Your task to perform on an android device: turn off improve location accuracy Image 0: 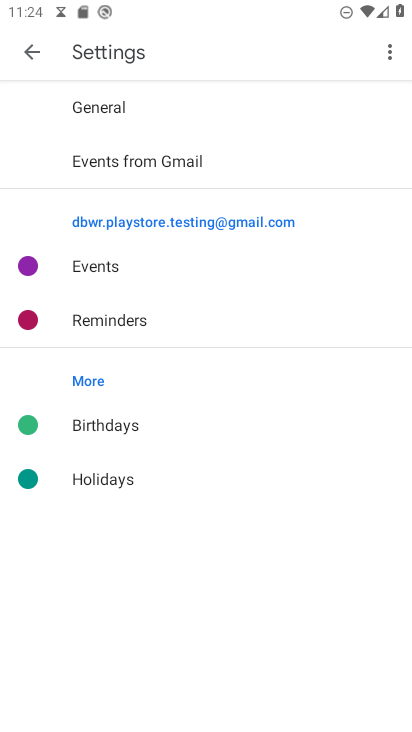
Step 0: press home button
Your task to perform on an android device: turn off improve location accuracy Image 1: 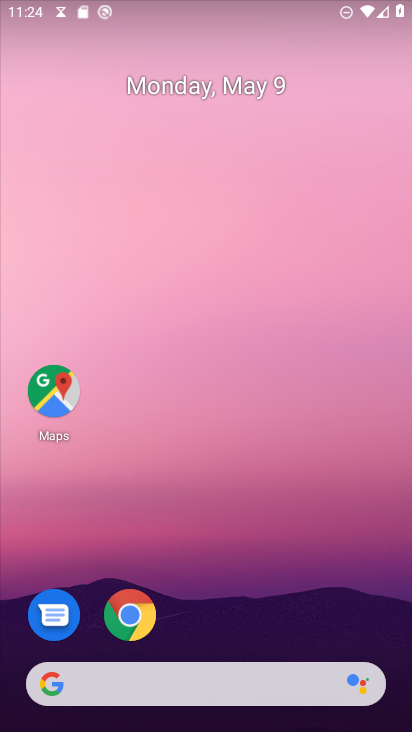
Step 1: drag from (209, 723) to (196, 183)
Your task to perform on an android device: turn off improve location accuracy Image 2: 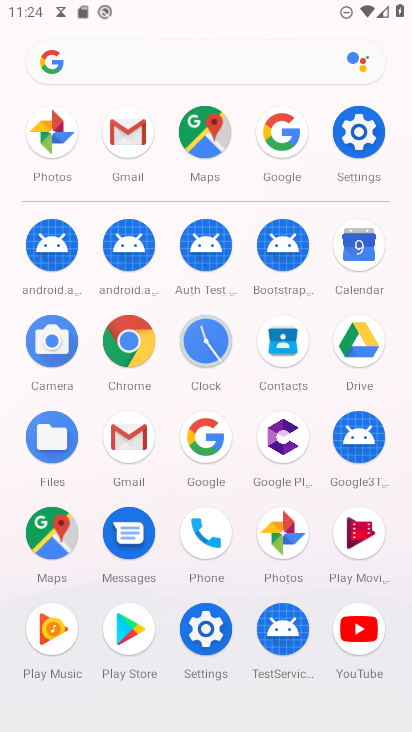
Step 2: click (360, 129)
Your task to perform on an android device: turn off improve location accuracy Image 3: 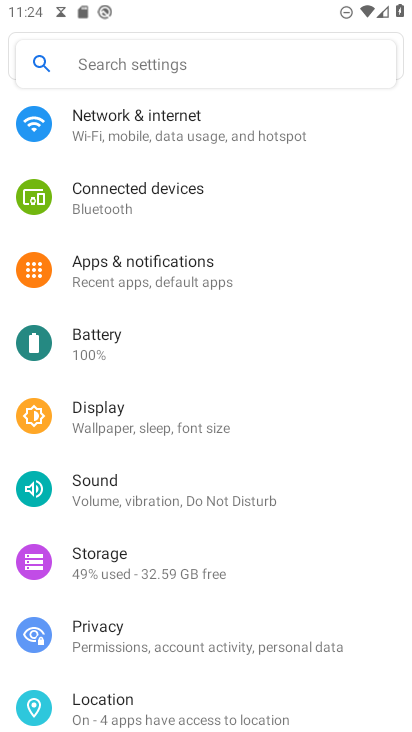
Step 3: click (114, 702)
Your task to perform on an android device: turn off improve location accuracy Image 4: 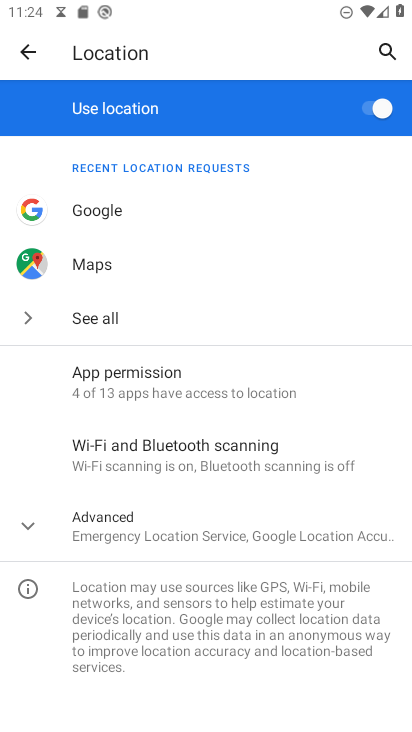
Step 4: click (136, 529)
Your task to perform on an android device: turn off improve location accuracy Image 5: 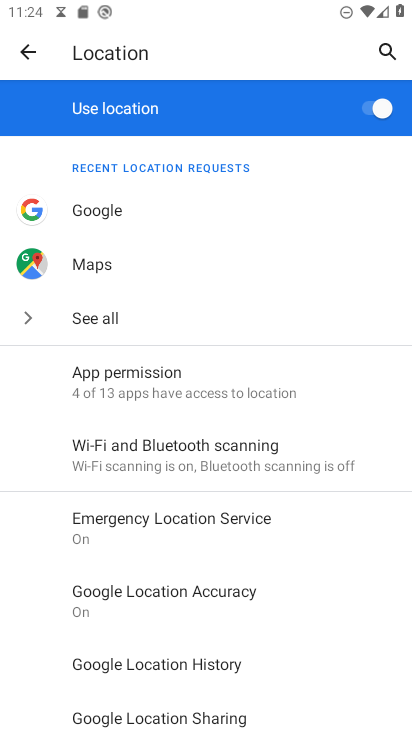
Step 5: click (128, 591)
Your task to perform on an android device: turn off improve location accuracy Image 6: 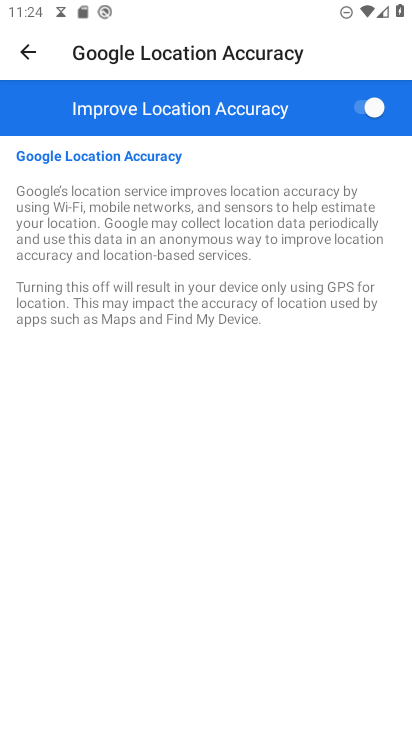
Step 6: click (359, 109)
Your task to perform on an android device: turn off improve location accuracy Image 7: 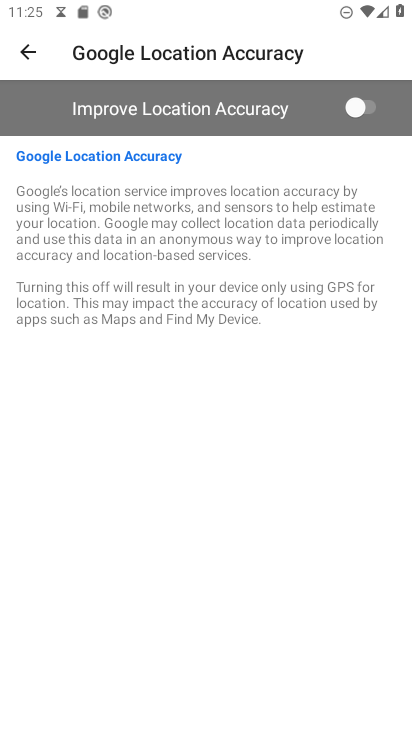
Step 7: task complete